Your task to perform on an android device: open a bookmark in the chrome app Image 0: 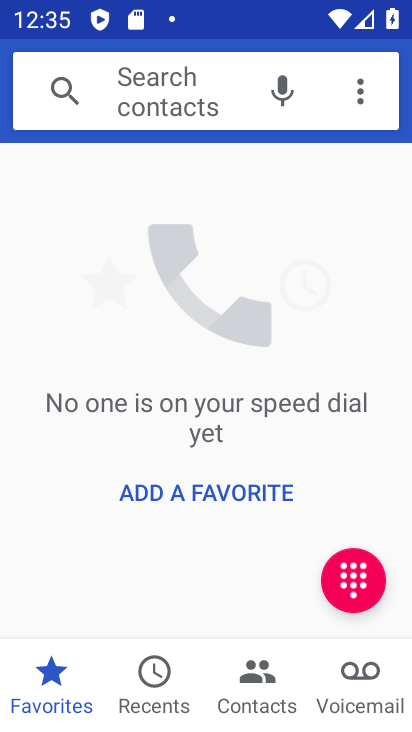
Step 0: press home button
Your task to perform on an android device: open a bookmark in the chrome app Image 1: 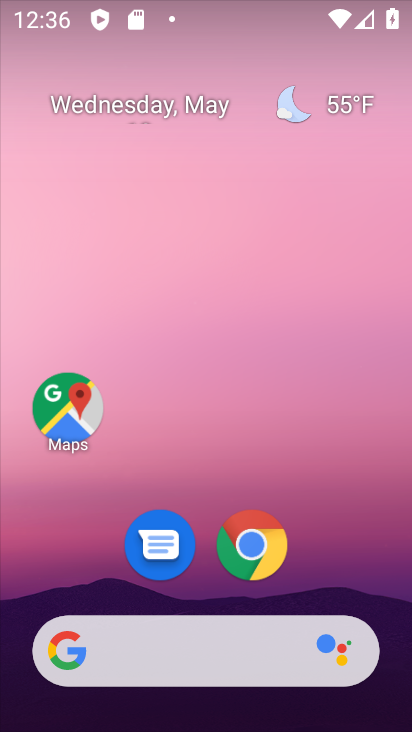
Step 1: click (246, 533)
Your task to perform on an android device: open a bookmark in the chrome app Image 2: 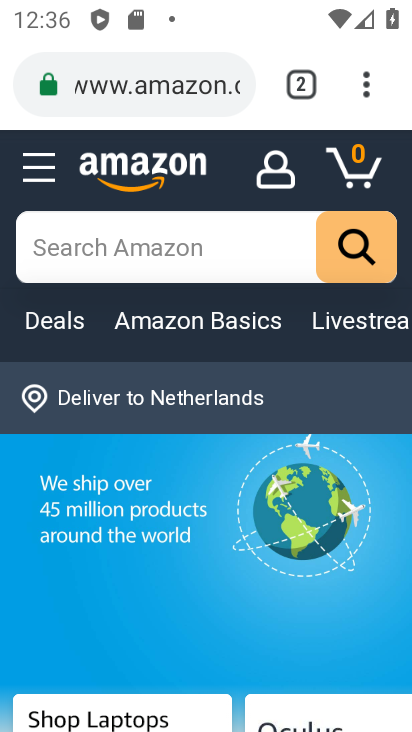
Step 2: click (372, 102)
Your task to perform on an android device: open a bookmark in the chrome app Image 3: 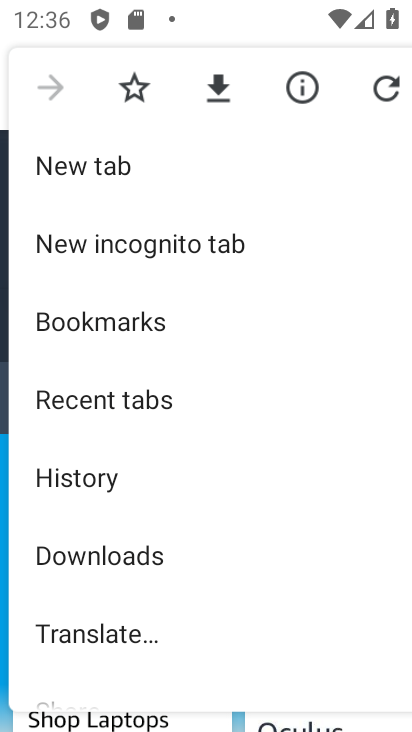
Step 3: click (114, 333)
Your task to perform on an android device: open a bookmark in the chrome app Image 4: 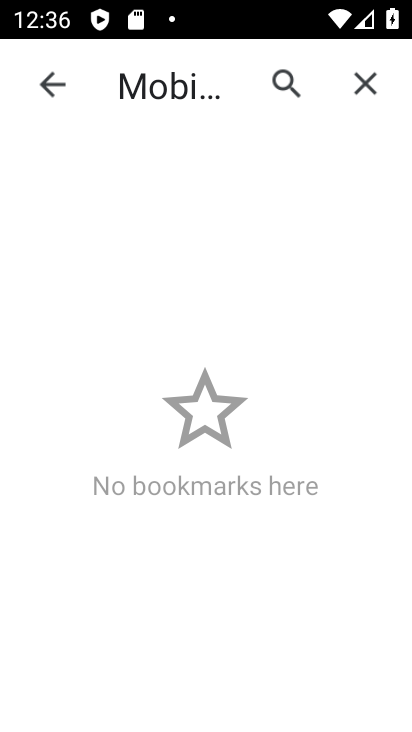
Step 4: task complete